Your task to perform on an android device: Do I have any events today? Image 0: 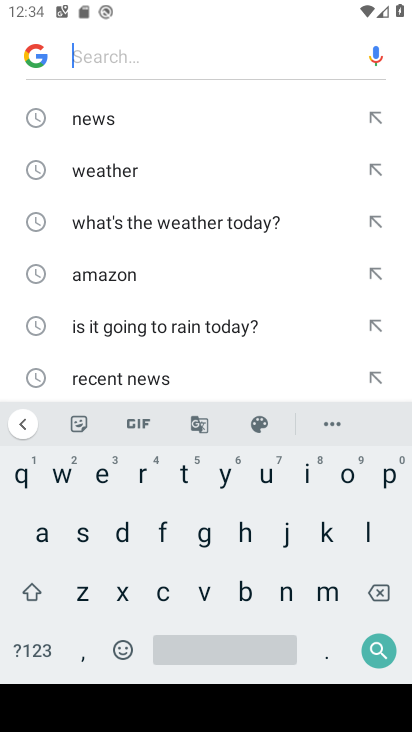
Step 0: press home button
Your task to perform on an android device: Do I have any events today? Image 1: 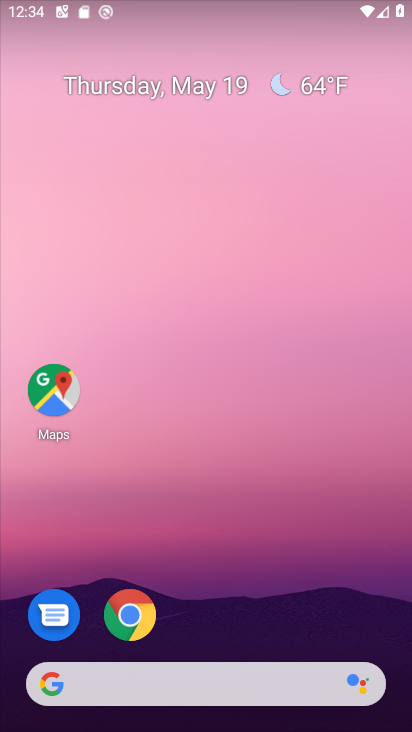
Step 1: drag from (241, 691) to (343, 170)
Your task to perform on an android device: Do I have any events today? Image 2: 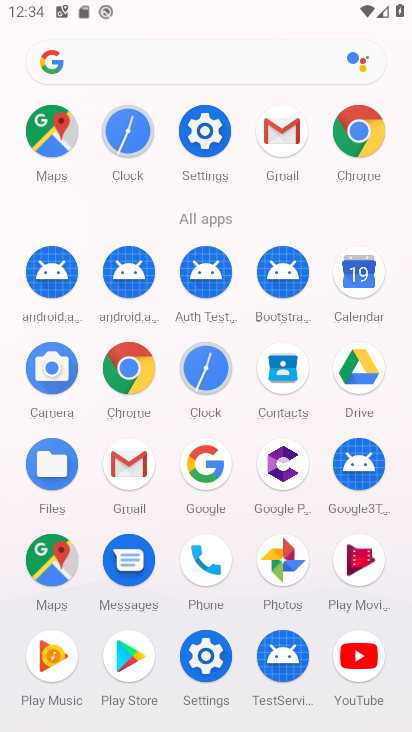
Step 2: click (366, 257)
Your task to perform on an android device: Do I have any events today? Image 3: 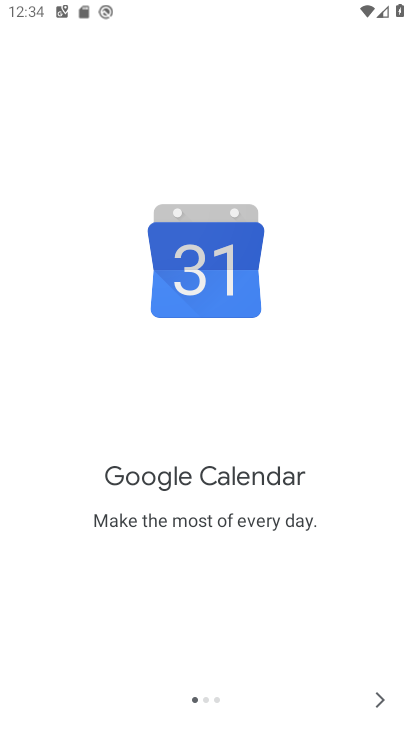
Step 3: click (367, 699)
Your task to perform on an android device: Do I have any events today? Image 4: 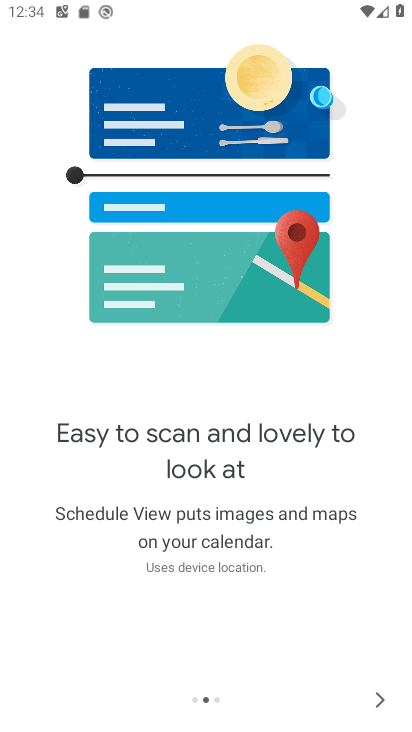
Step 4: click (369, 683)
Your task to perform on an android device: Do I have any events today? Image 5: 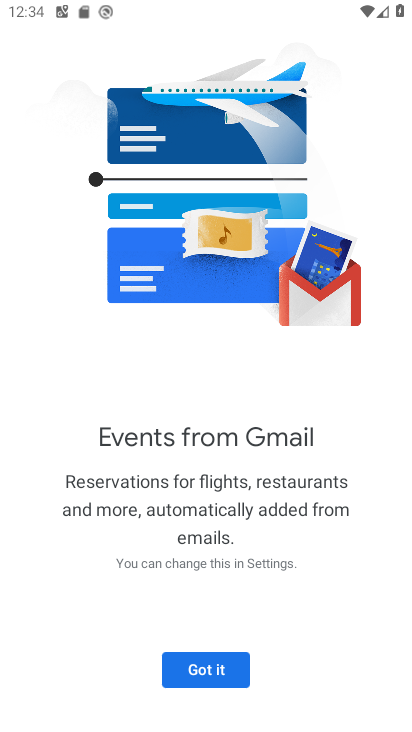
Step 5: click (174, 658)
Your task to perform on an android device: Do I have any events today? Image 6: 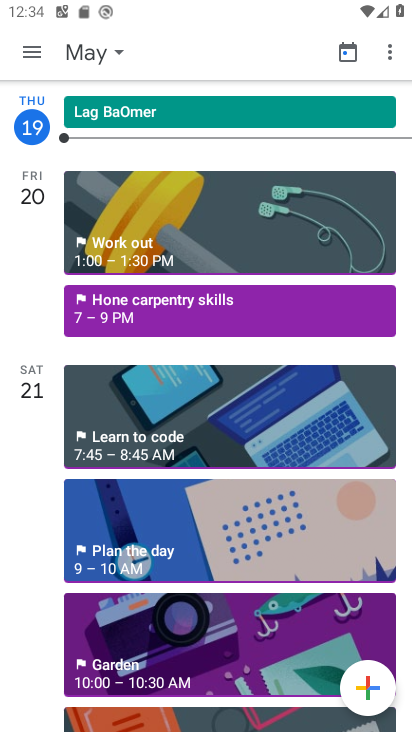
Step 6: click (32, 50)
Your task to perform on an android device: Do I have any events today? Image 7: 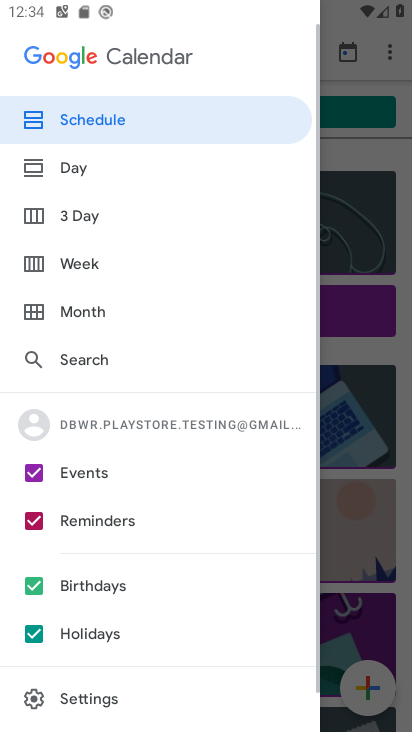
Step 7: click (72, 311)
Your task to perform on an android device: Do I have any events today? Image 8: 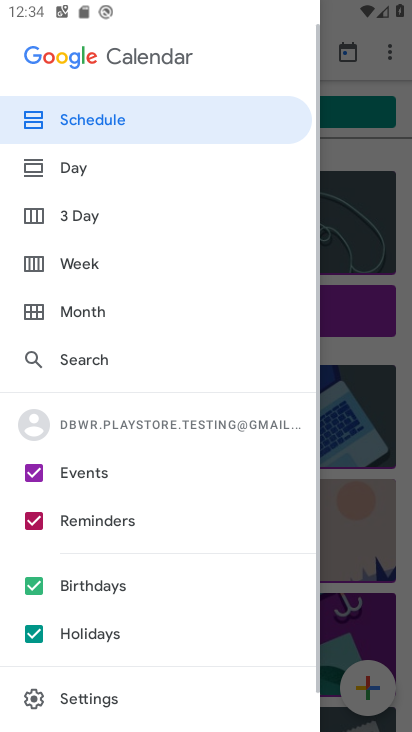
Step 8: click (68, 313)
Your task to perform on an android device: Do I have any events today? Image 9: 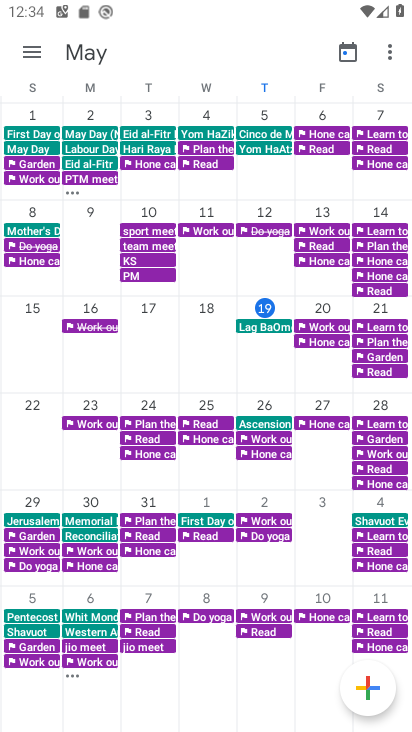
Step 9: click (256, 316)
Your task to perform on an android device: Do I have any events today? Image 10: 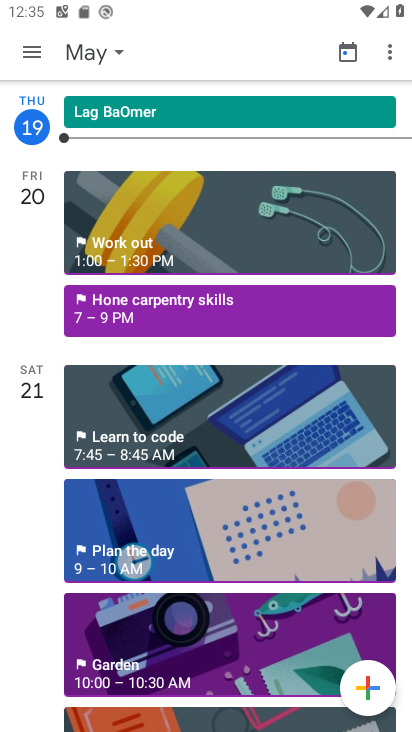
Step 10: task complete